Your task to perform on an android device: Open CNN.com Image 0: 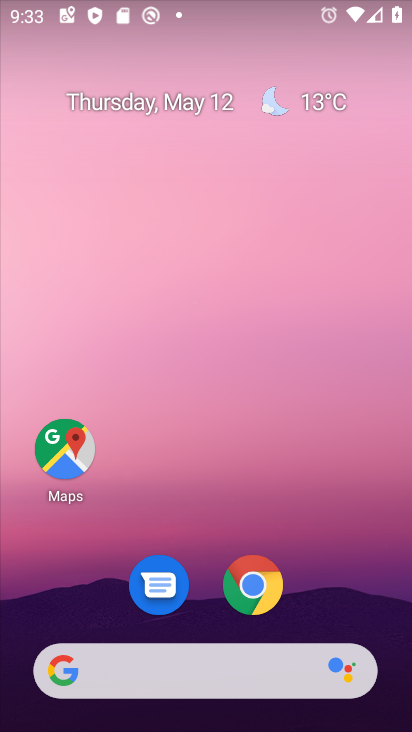
Step 0: click (214, 667)
Your task to perform on an android device: Open CNN.com Image 1: 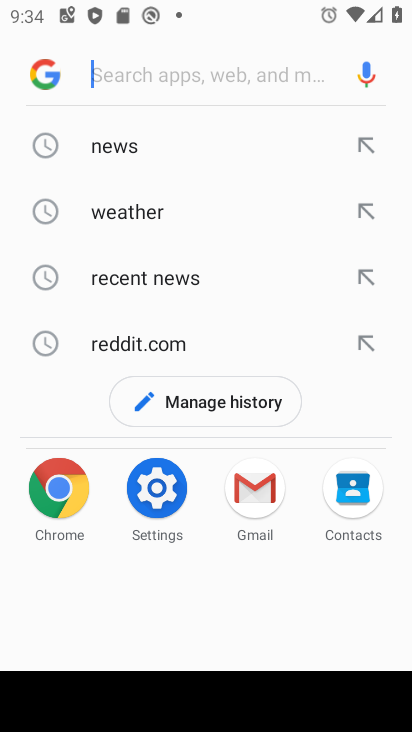
Step 1: type "cnn.com"
Your task to perform on an android device: Open CNN.com Image 2: 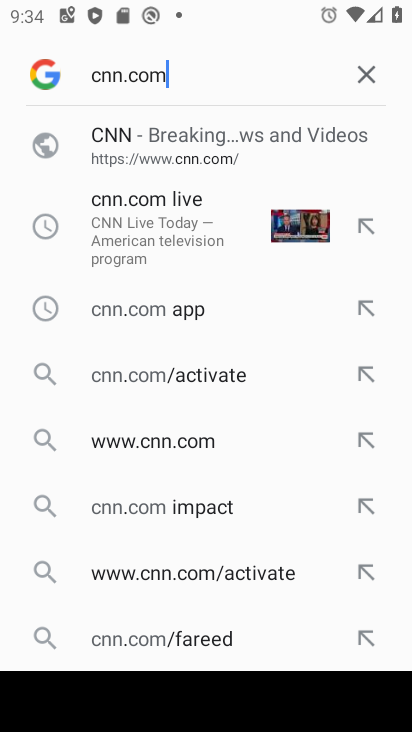
Step 2: click (65, 134)
Your task to perform on an android device: Open CNN.com Image 3: 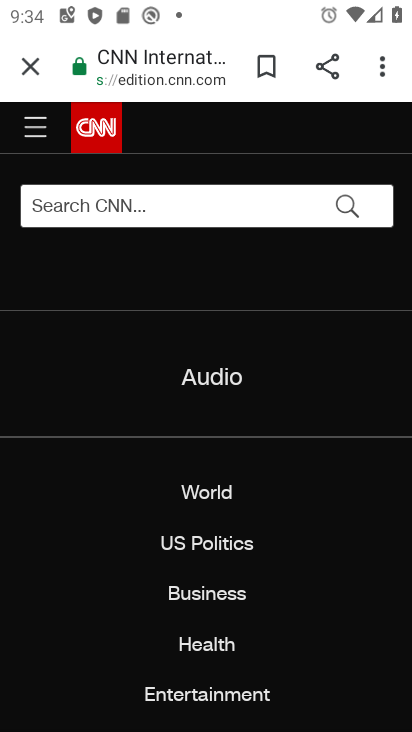
Step 3: task complete